Your task to perform on an android device: change keyboard looks Image 0: 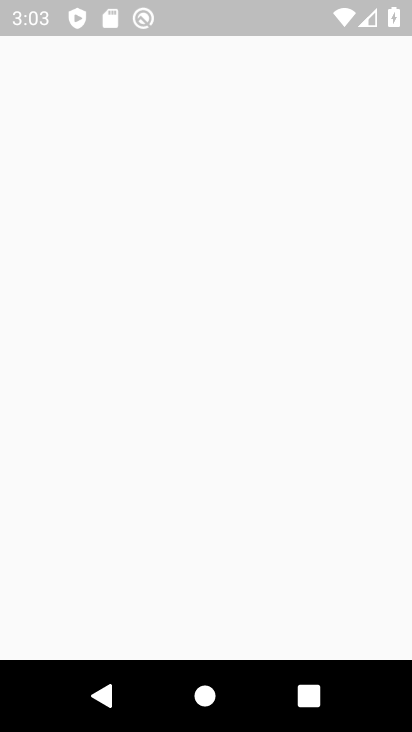
Step 0: press back button
Your task to perform on an android device: change keyboard looks Image 1: 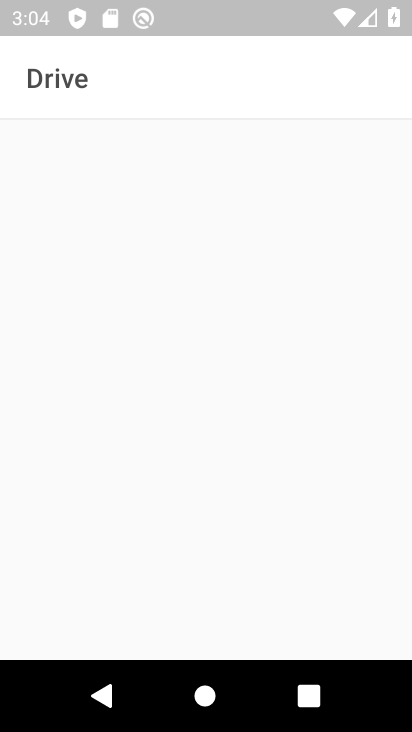
Step 1: press back button
Your task to perform on an android device: change keyboard looks Image 2: 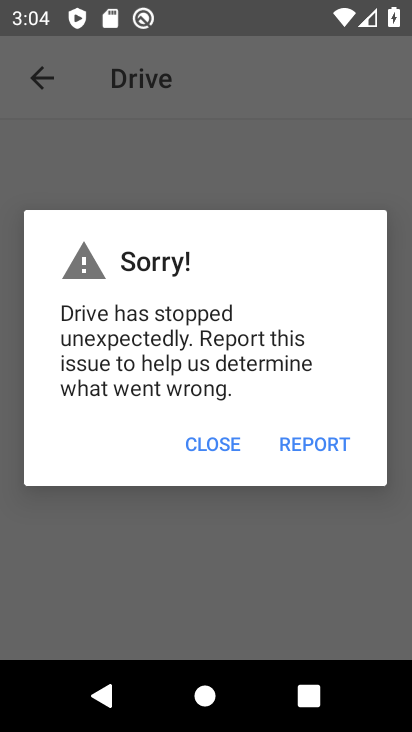
Step 2: press home button
Your task to perform on an android device: change keyboard looks Image 3: 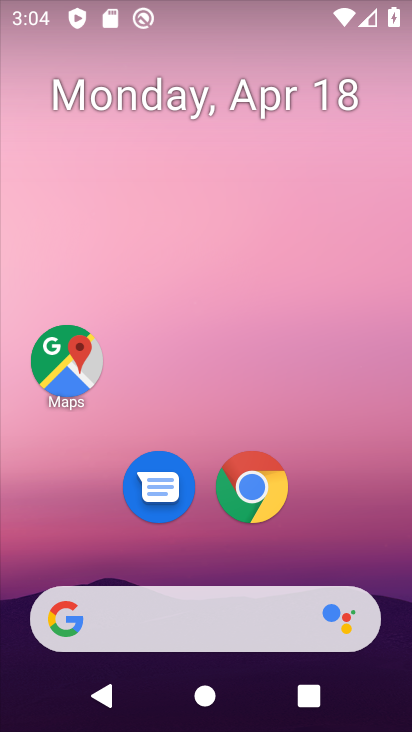
Step 3: drag from (349, 515) to (292, 26)
Your task to perform on an android device: change keyboard looks Image 4: 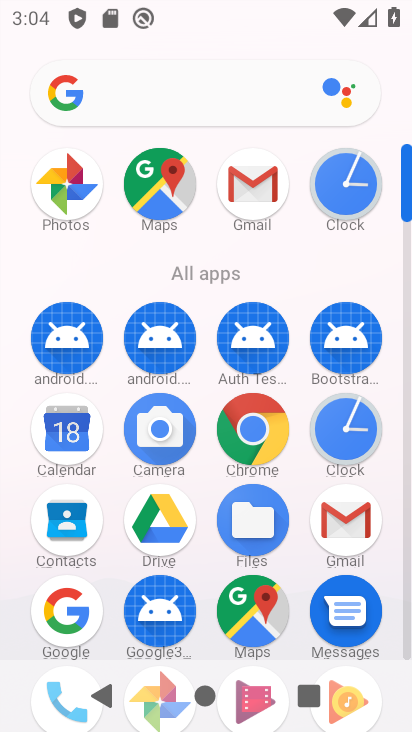
Step 4: drag from (9, 473) to (11, 214)
Your task to perform on an android device: change keyboard looks Image 5: 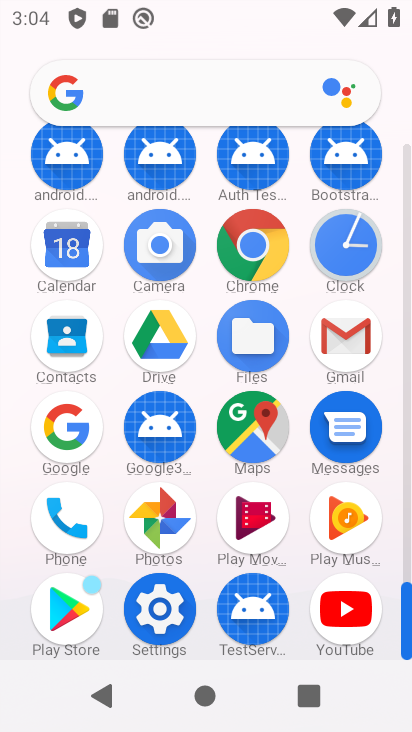
Step 5: click (160, 610)
Your task to perform on an android device: change keyboard looks Image 6: 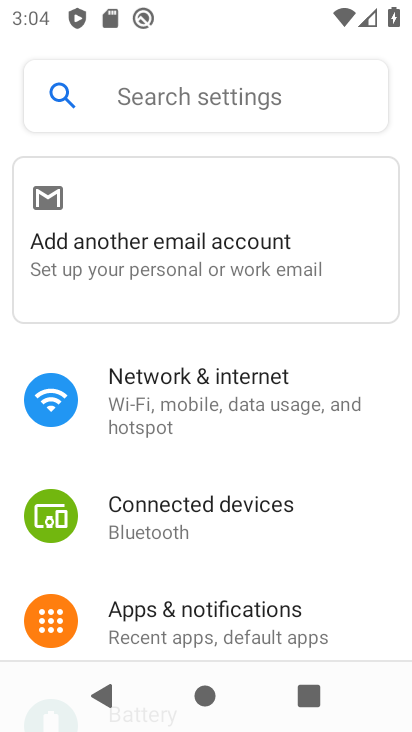
Step 6: drag from (364, 568) to (355, 141)
Your task to perform on an android device: change keyboard looks Image 7: 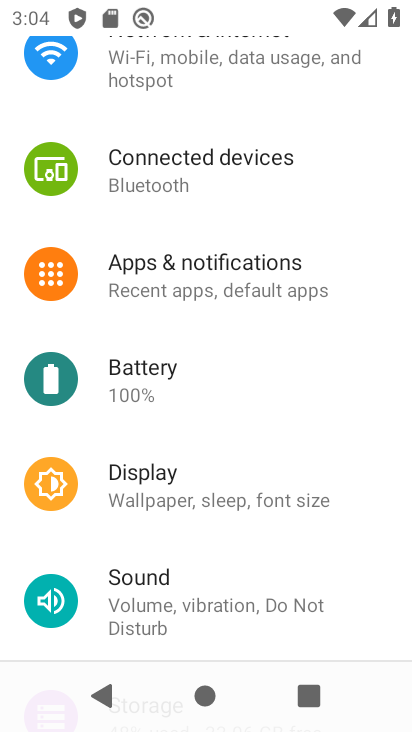
Step 7: drag from (373, 556) to (384, 195)
Your task to perform on an android device: change keyboard looks Image 8: 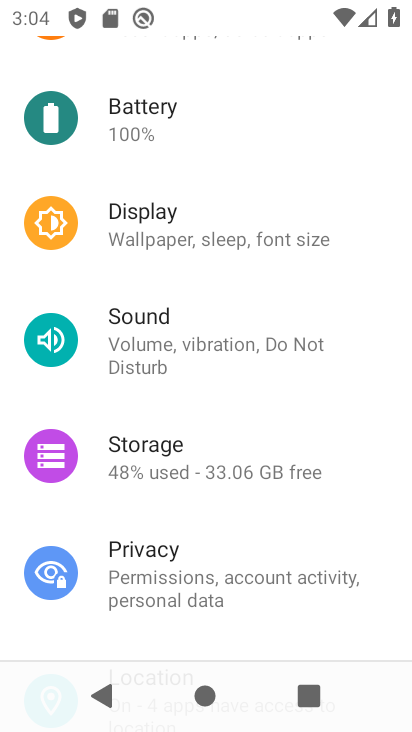
Step 8: click (361, 98)
Your task to perform on an android device: change keyboard looks Image 9: 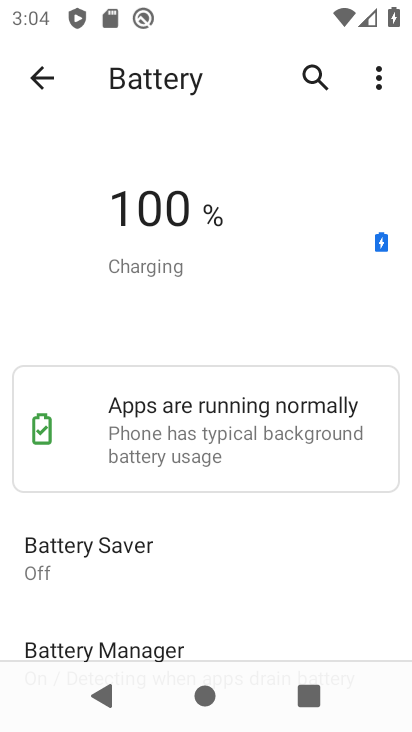
Step 9: click (43, 86)
Your task to perform on an android device: change keyboard looks Image 10: 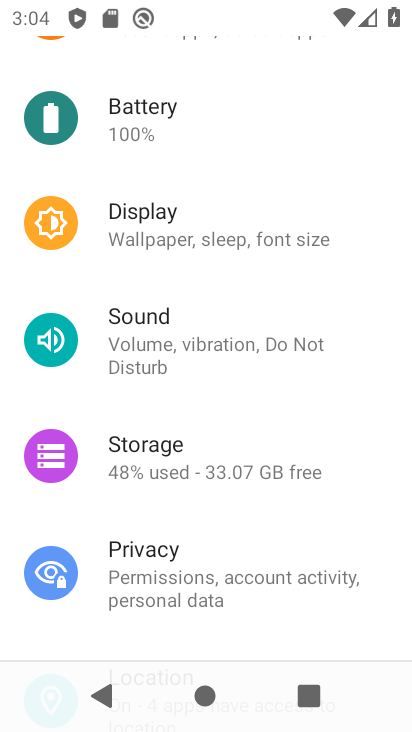
Step 10: drag from (353, 525) to (340, 133)
Your task to perform on an android device: change keyboard looks Image 11: 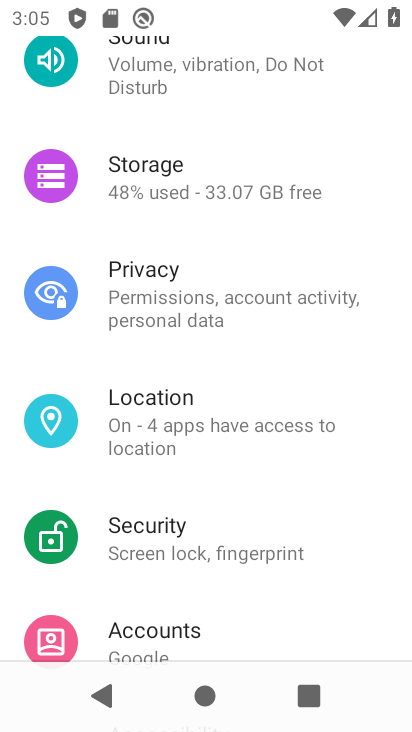
Step 11: drag from (341, 521) to (357, 133)
Your task to perform on an android device: change keyboard looks Image 12: 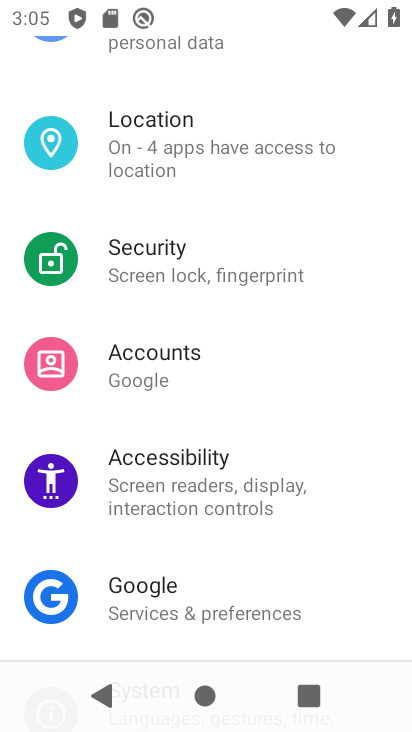
Step 12: drag from (319, 488) to (342, 103)
Your task to perform on an android device: change keyboard looks Image 13: 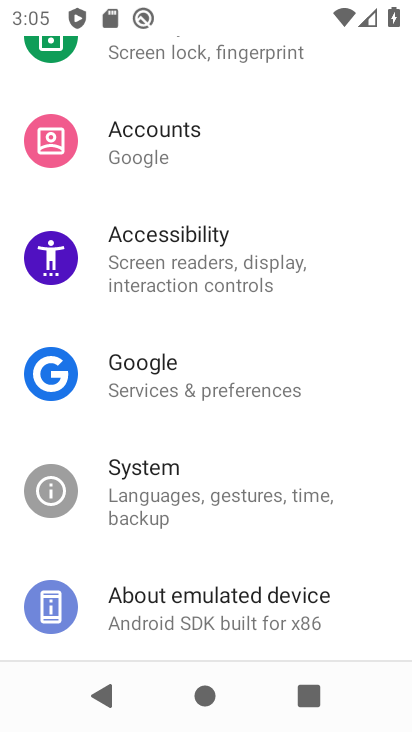
Step 13: drag from (358, 357) to (367, 176)
Your task to perform on an android device: change keyboard looks Image 14: 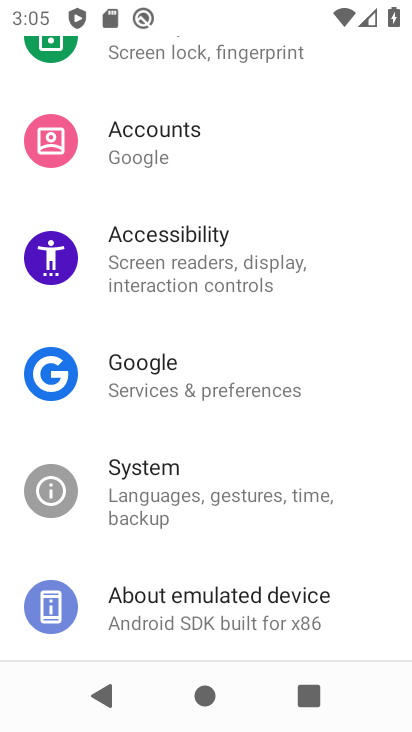
Step 14: drag from (390, 549) to (347, 200)
Your task to perform on an android device: change keyboard looks Image 15: 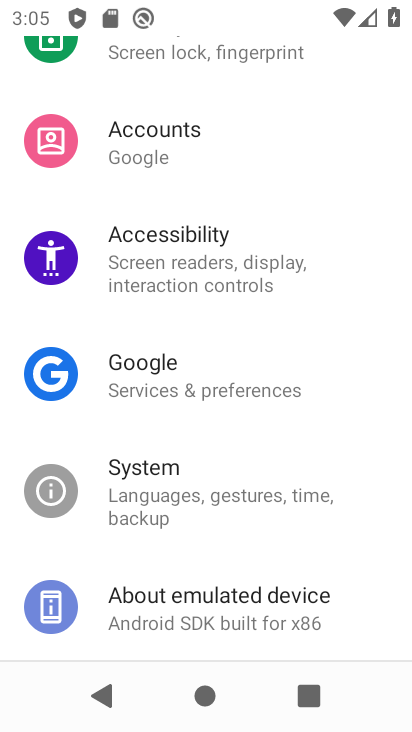
Step 15: click (187, 478)
Your task to perform on an android device: change keyboard looks Image 16: 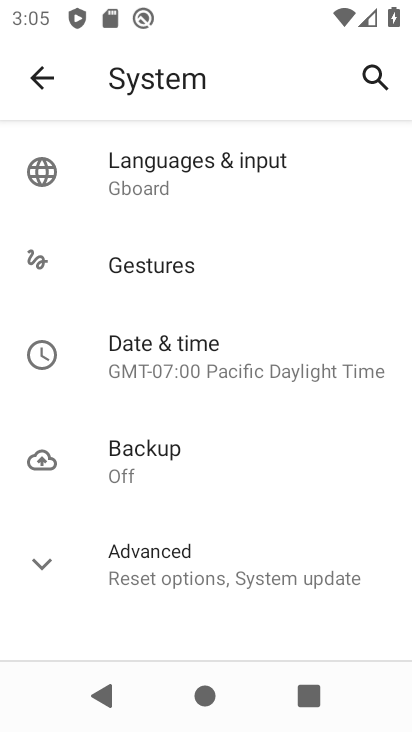
Step 16: click (56, 554)
Your task to perform on an android device: change keyboard looks Image 17: 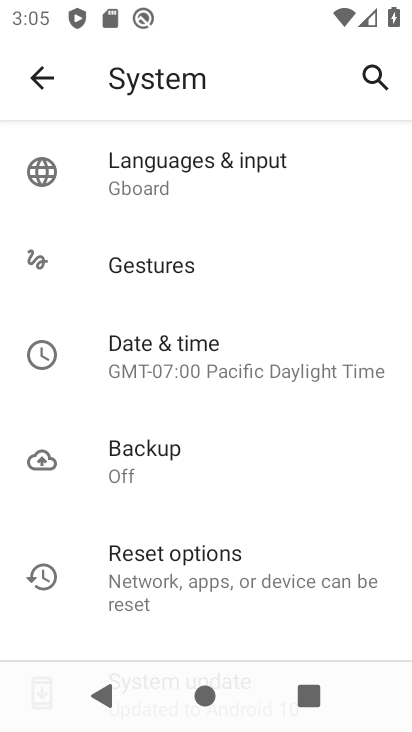
Step 17: click (208, 165)
Your task to perform on an android device: change keyboard looks Image 18: 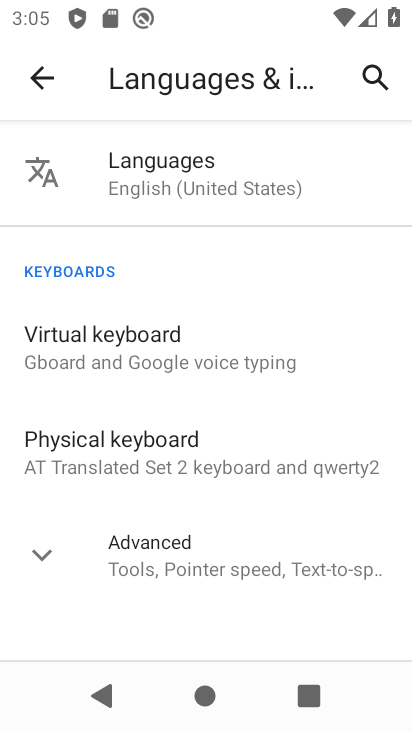
Step 18: click (158, 345)
Your task to perform on an android device: change keyboard looks Image 19: 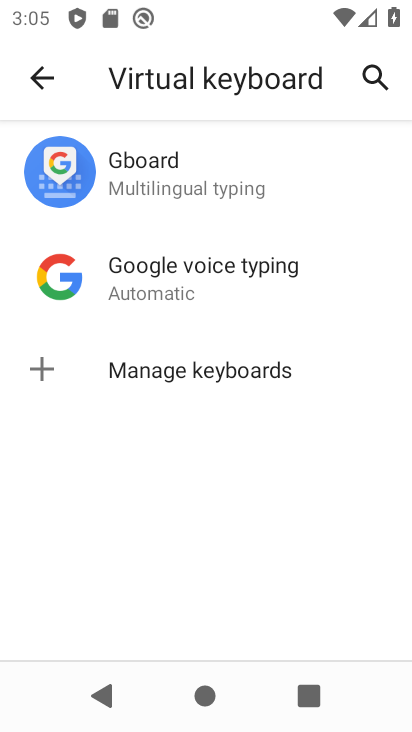
Step 19: click (209, 167)
Your task to perform on an android device: change keyboard looks Image 20: 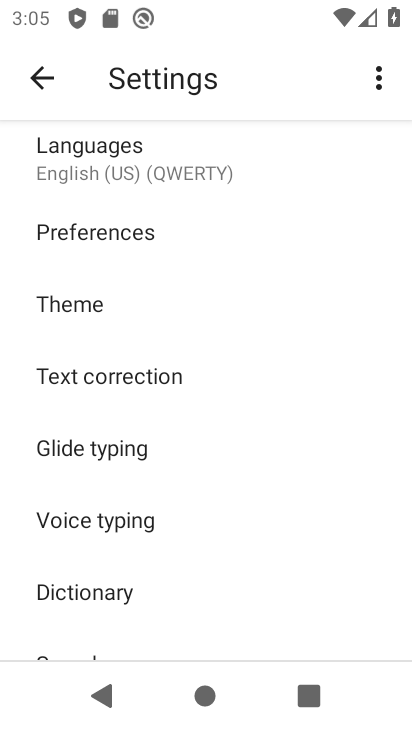
Step 20: click (68, 296)
Your task to perform on an android device: change keyboard looks Image 21: 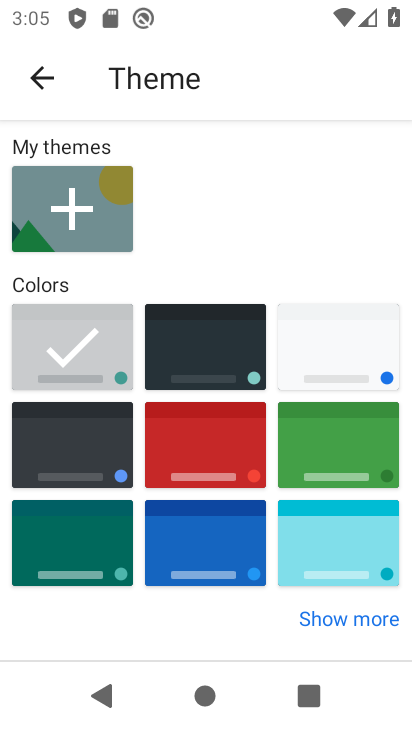
Step 21: click (313, 544)
Your task to perform on an android device: change keyboard looks Image 22: 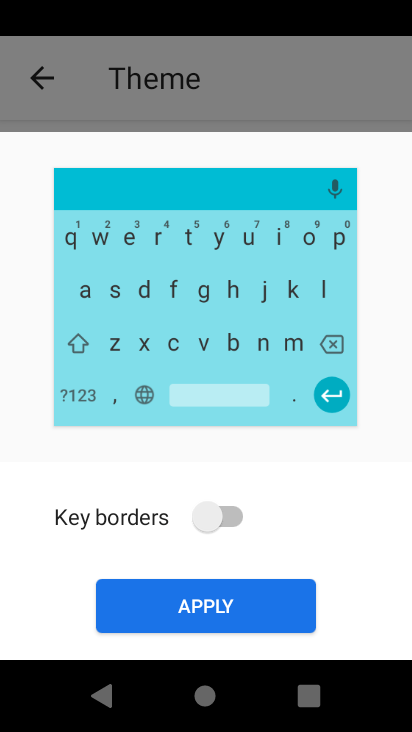
Step 22: click (268, 588)
Your task to perform on an android device: change keyboard looks Image 23: 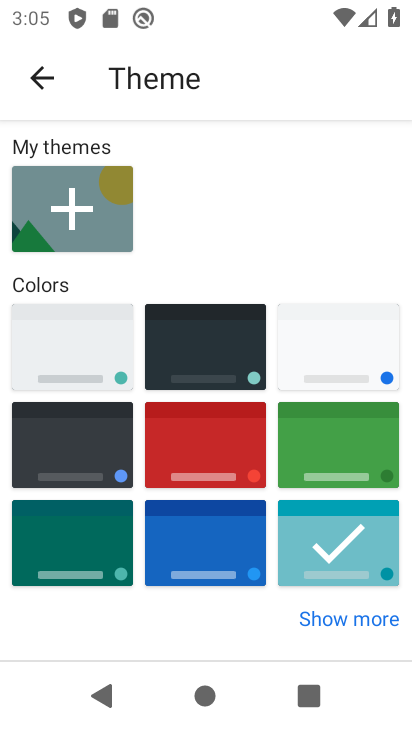
Step 23: task complete